Your task to perform on an android device: Search for the new Air Jordan 13 on Nike.com Image 0: 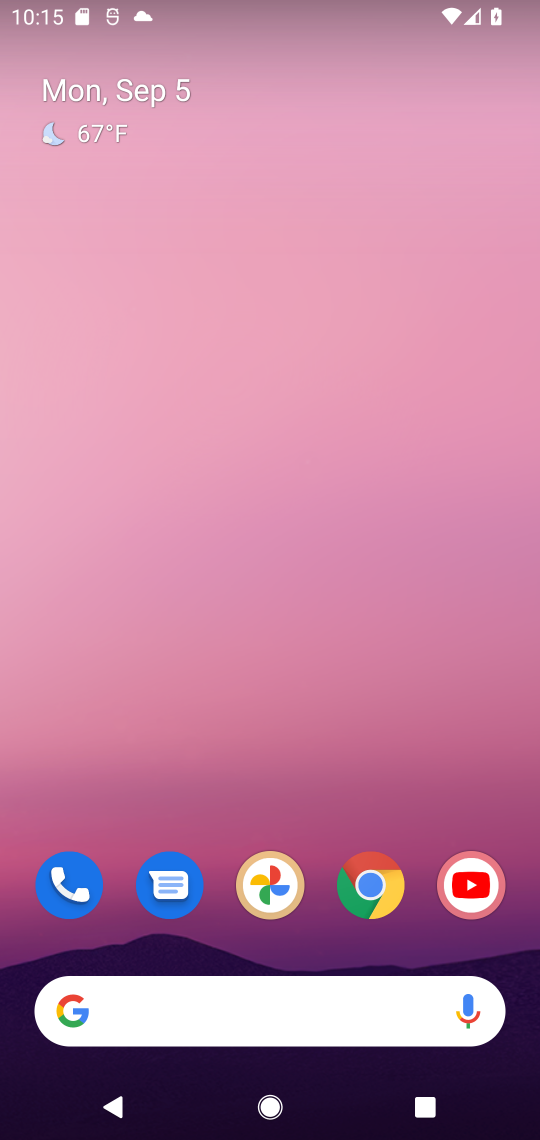
Step 0: drag from (320, 308) to (335, 229)
Your task to perform on an android device: Search for the new Air Jordan 13 on Nike.com Image 1: 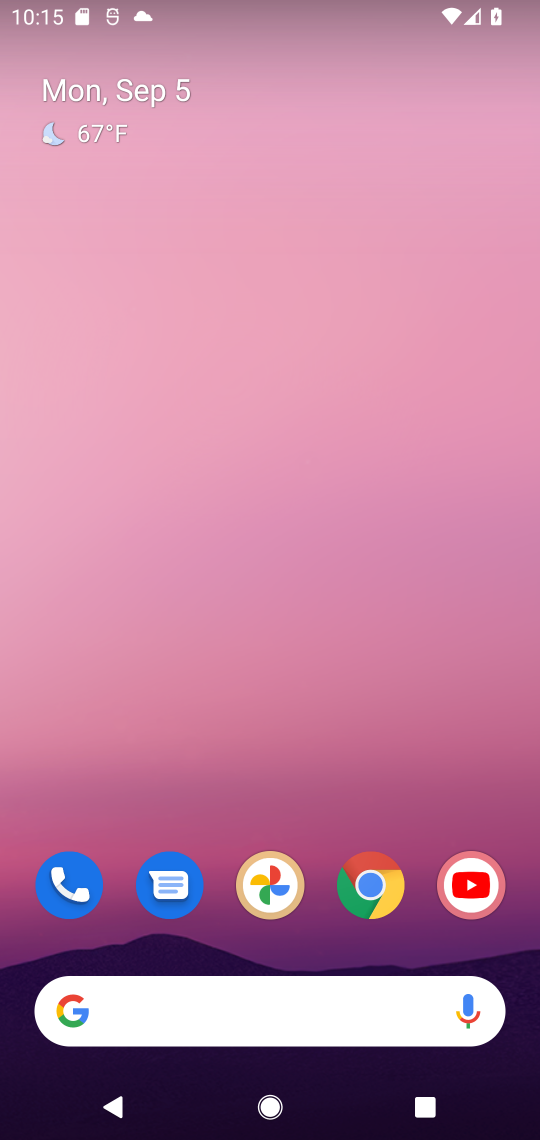
Step 1: click (327, 178)
Your task to perform on an android device: Search for the new Air Jordan 13 on Nike.com Image 2: 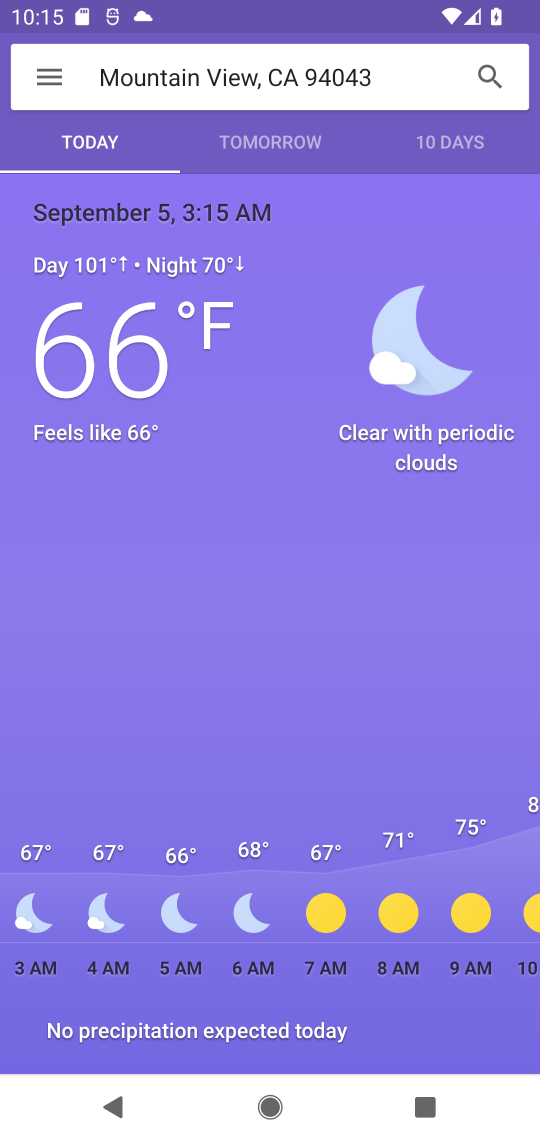
Step 2: press home button
Your task to perform on an android device: Search for the new Air Jordan 13 on Nike.com Image 3: 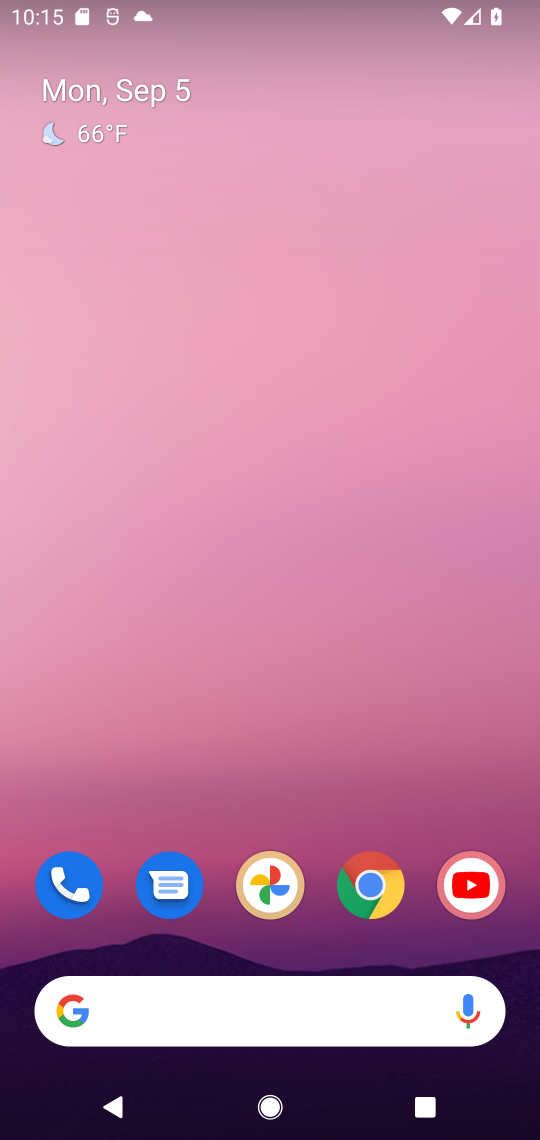
Step 3: drag from (327, 969) to (357, 135)
Your task to perform on an android device: Search for the new Air Jordan 13 on Nike.com Image 4: 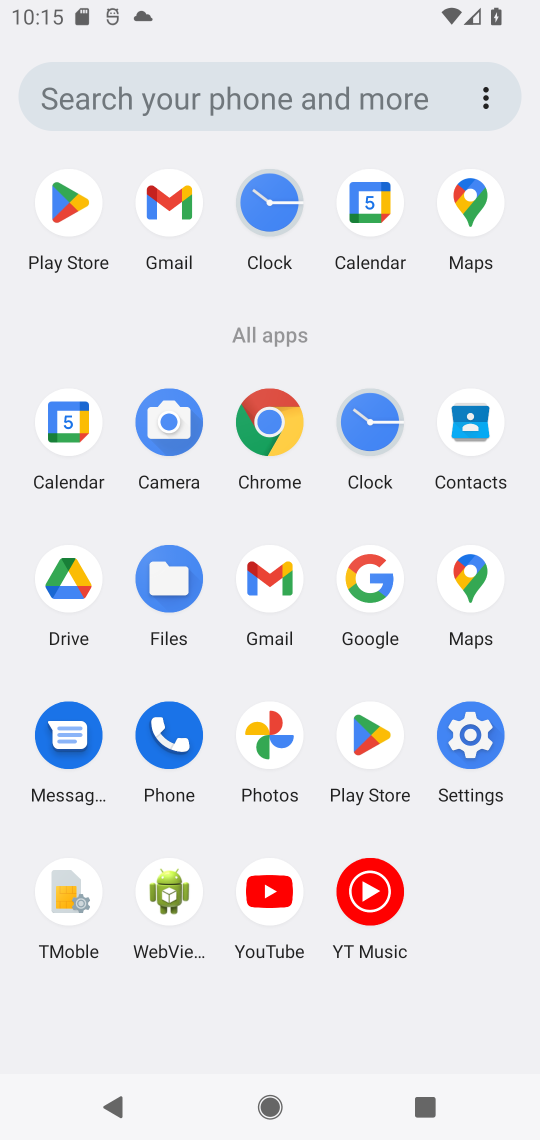
Step 4: click (267, 406)
Your task to perform on an android device: Search for the new Air Jordan 13 on Nike.com Image 5: 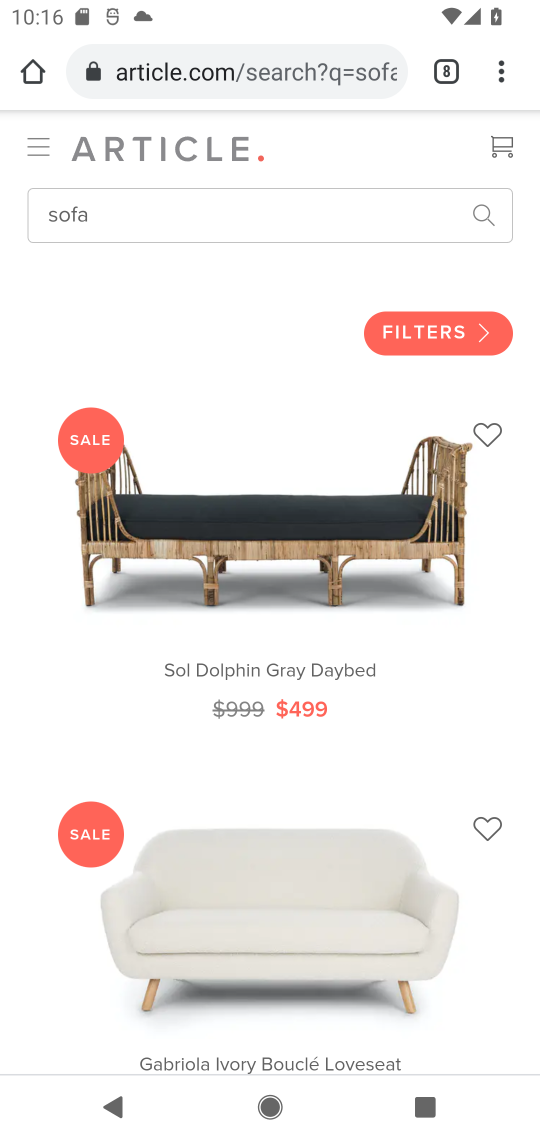
Step 5: drag from (504, 83) to (264, 243)
Your task to perform on an android device: Search for the new Air Jordan 13 on Nike.com Image 6: 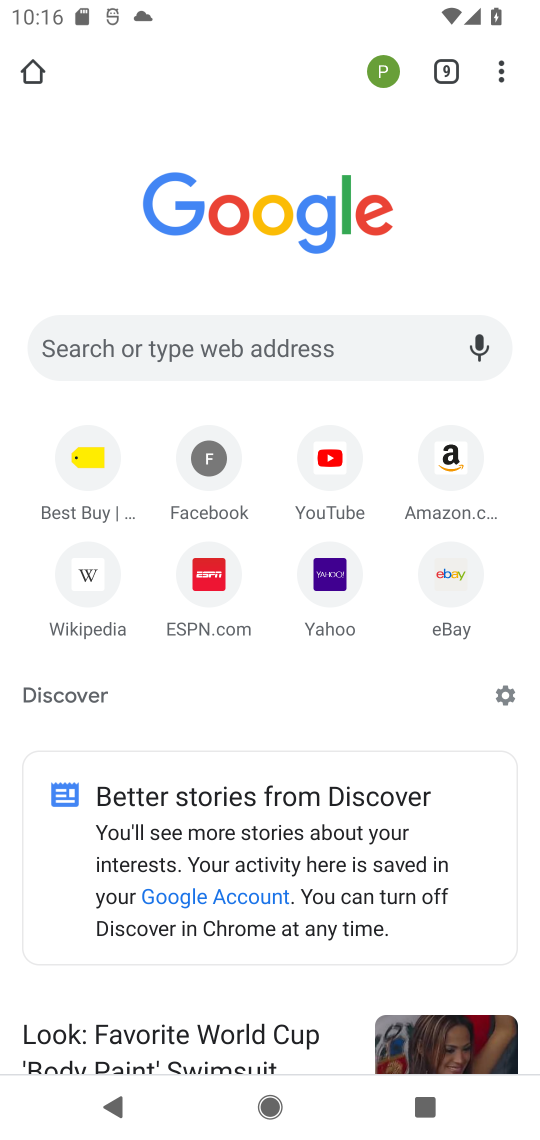
Step 6: click (133, 358)
Your task to perform on an android device: Search for the new Air Jordan 13 on Nike.com Image 7: 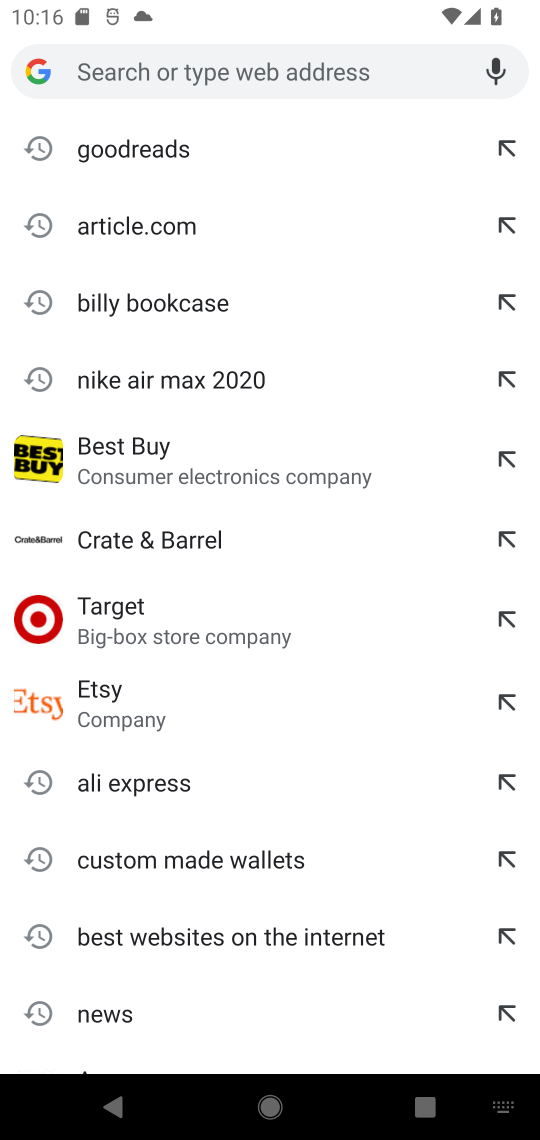
Step 7: type "Nike.com"
Your task to perform on an android device: Search for the new Air Jordan 13 on Nike.com Image 8: 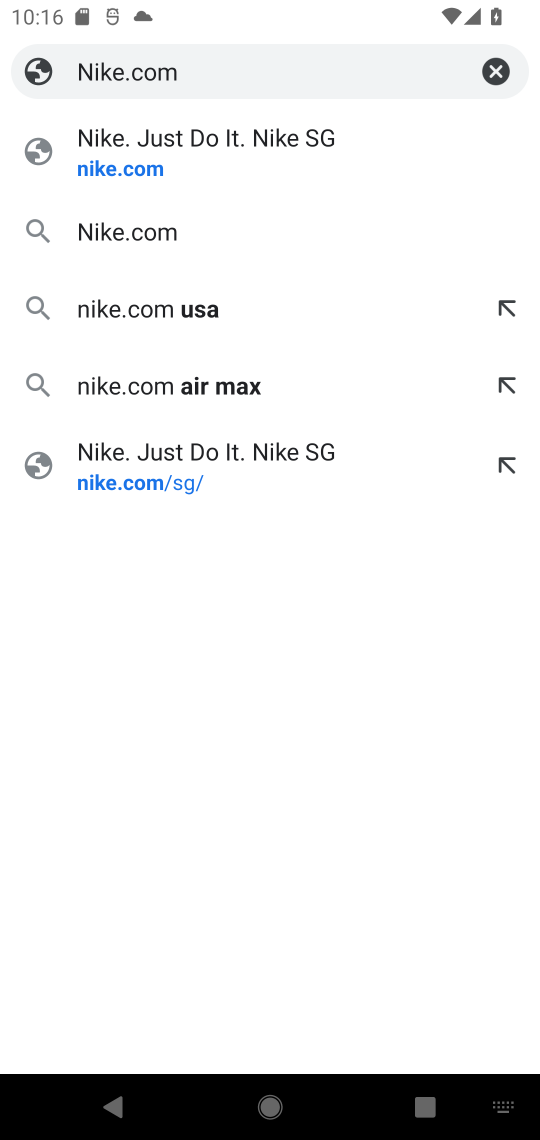
Step 8: click (155, 234)
Your task to perform on an android device: Search for the new Air Jordan 13 on Nike.com Image 9: 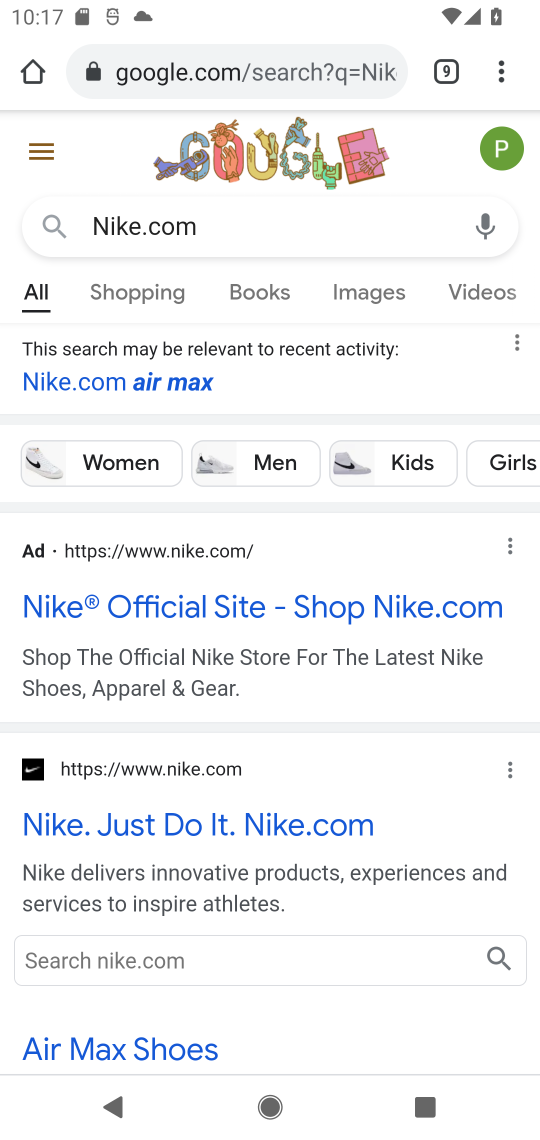
Step 9: click (163, 606)
Your task to perform on an android device: Search for the new Air Jordan 13 on Nike.com Image 10: 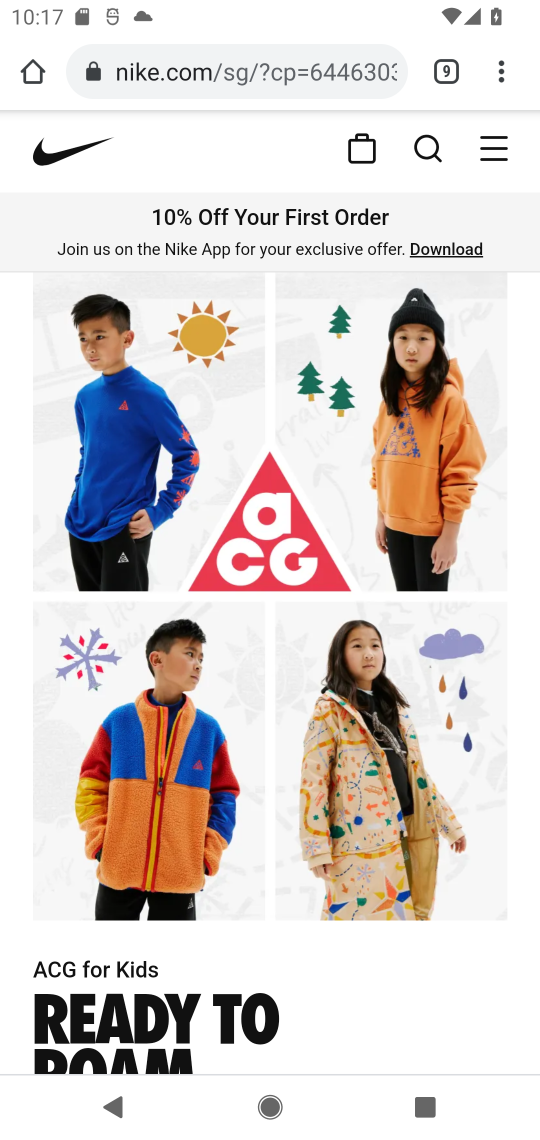
Step 10: click (420, 139)
Your task to perform on an android device: Search for the new Air Jordan 13 on Nike.com Image 11: 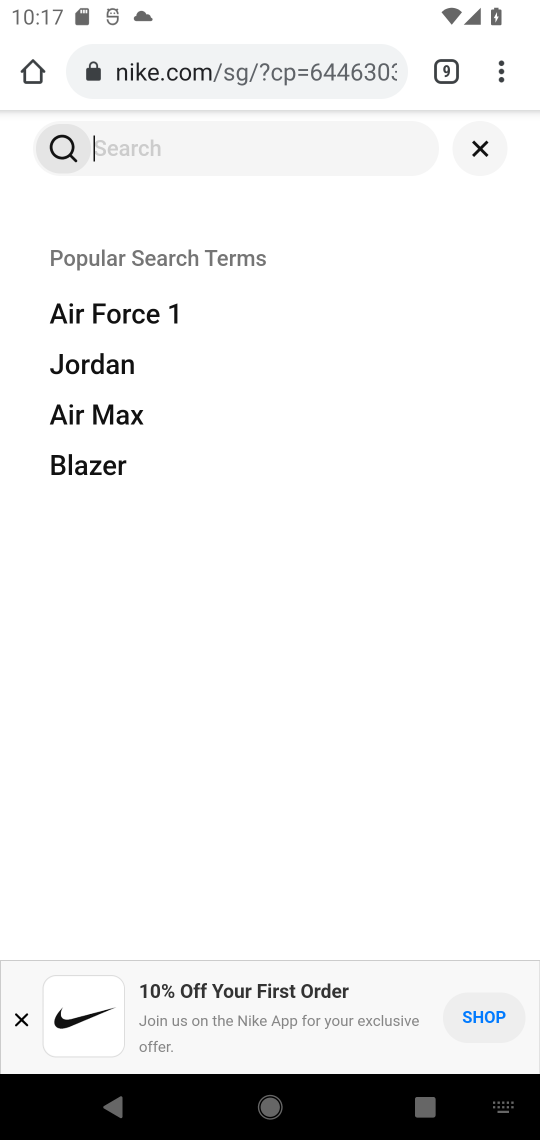
Step 11: type "Air Jordan 13"
Your task to perform on an android device: Search for the new Air Jordan 13 on Nike.com Image 12: 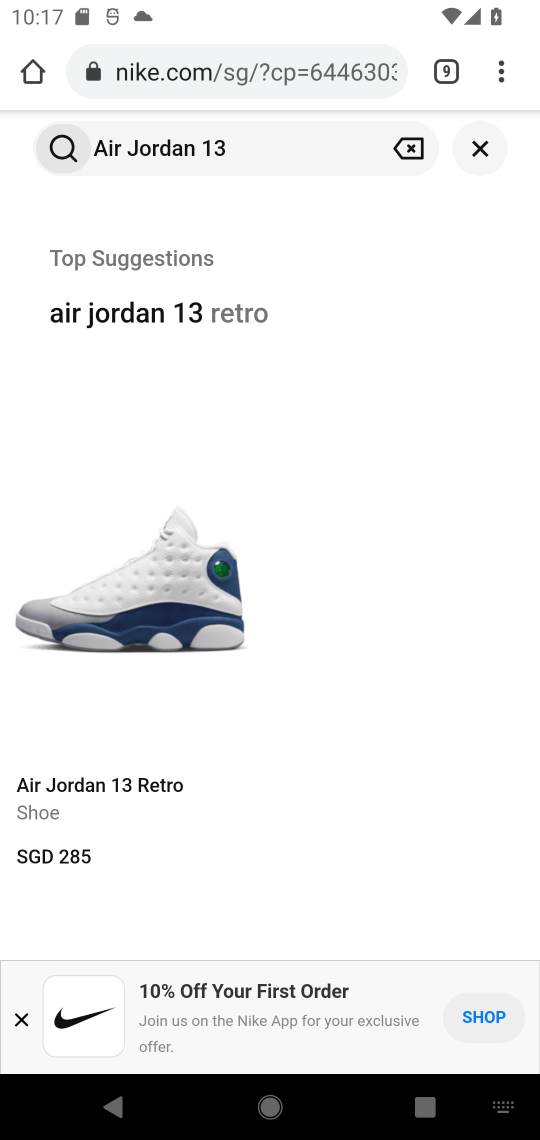
Step 12: task complete